Your task to perform on an android device: turn smart compose on in the gmail app Image 0: 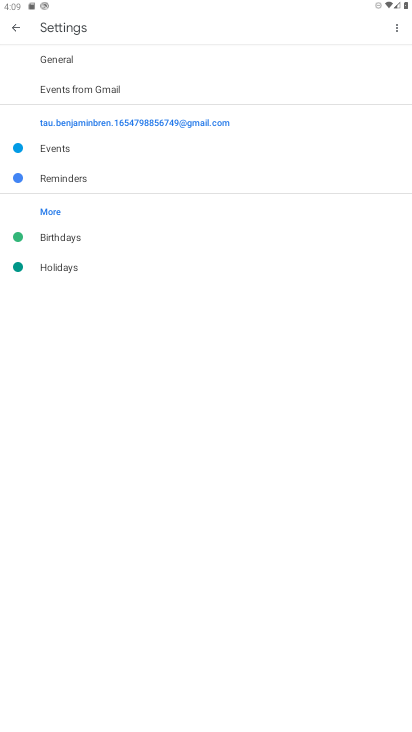
Step 0: press home button
Your task to perform on an android device: turn smart compose on in the gmail app Image 1: 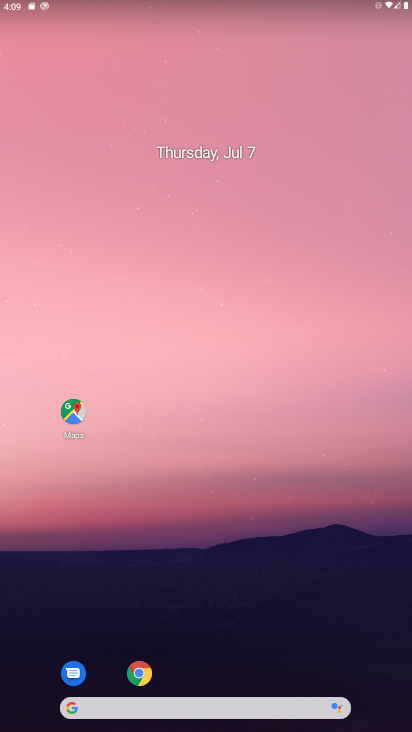
Step 1: drag from (219, 678) to (234, 5)
Your task to perform on an android device: turn smart compose on in the gmail app Image 2: 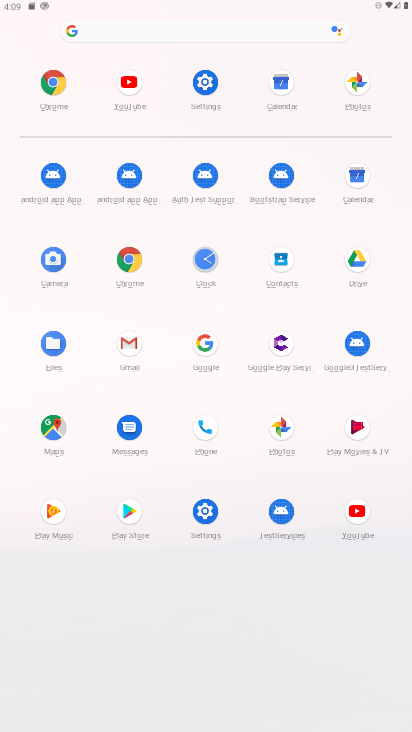
Step 2: click (129, 339)
Your task to perform on an android device: turn smart compose on in the gmail app Image 3: 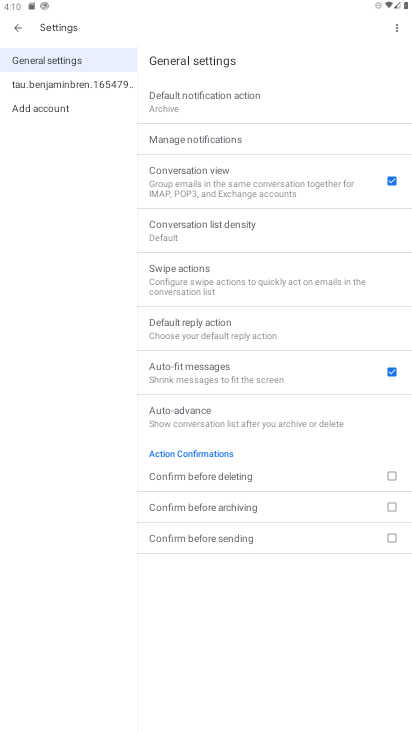
Step 3: click (91, 80)
Your task to perform on an android device: turn smart compose on in the gmail app Image 4: 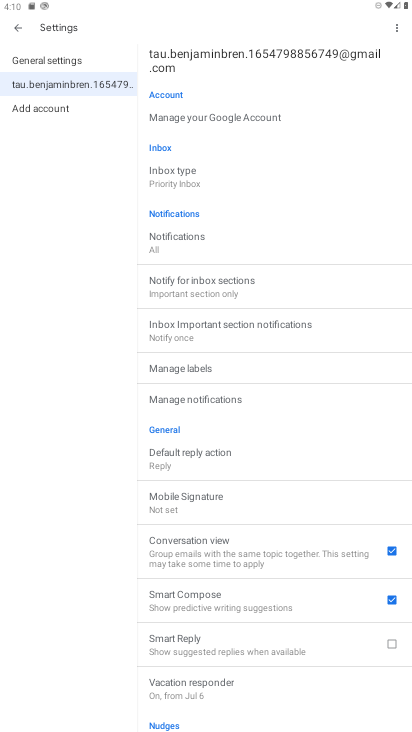
Step 4: task complete